Your task to perform on an android device: Show me productivity apps on the Play Store Image 0: 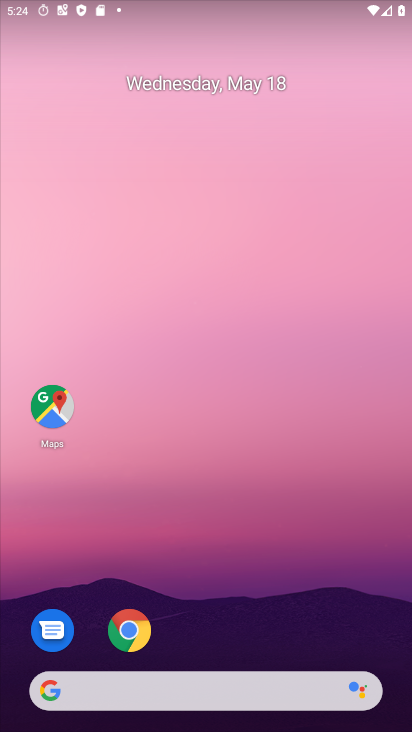
Step 0: drag from (201, 574) to (200, 256)
Your task to perform on an android device: Show me productivity apps on the Play Store Image 1: 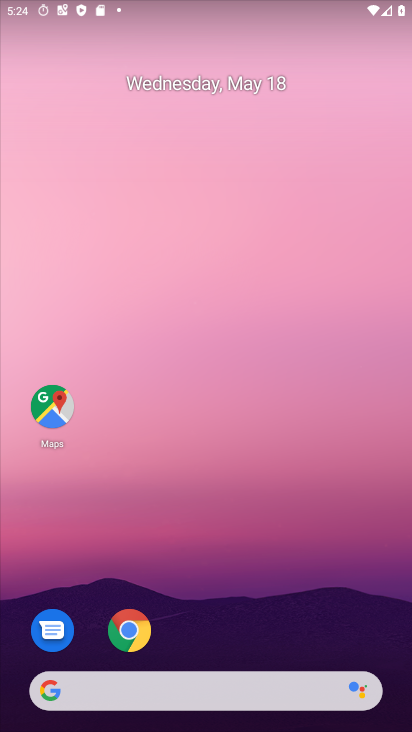
Step 1: drag from (173, 674) to (177, 155)
Your task to perform on an android device: Show me productivity apps on the Play Store Image 2: 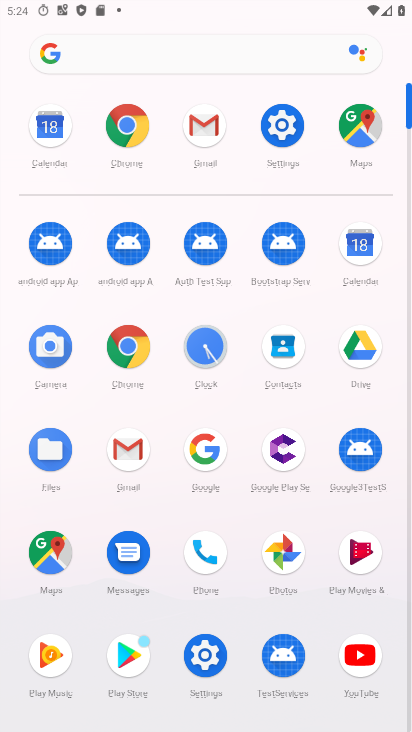
Step 2: click (128, 668)
Your task to perform on an android device: Show me productivity apps on the Play Store Image 3: 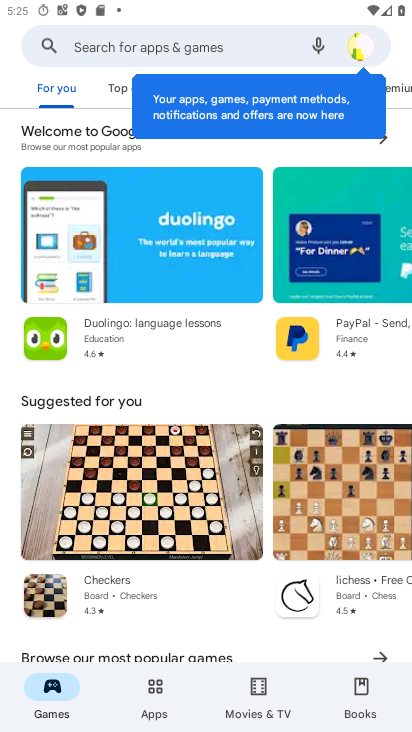
Step 3: drag from (163, 638) to (164, 298)
Your task to perform on an android device: Show me productivity apps on the Play Store Image 4: 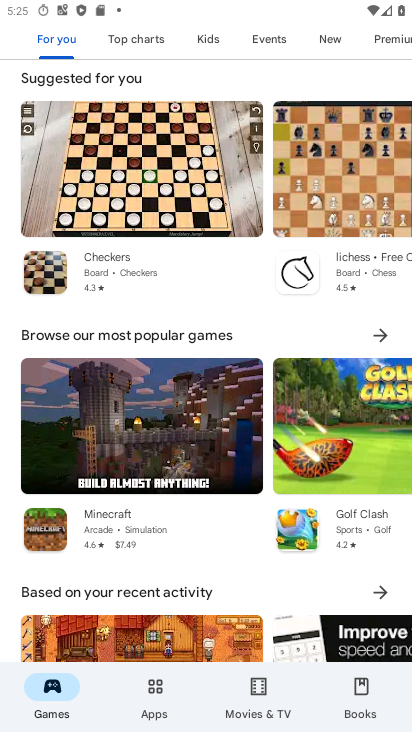
Step 4: click (148, 691)
Your task to perform on an android device: Show me productivity apps on the Play Store Image 5: 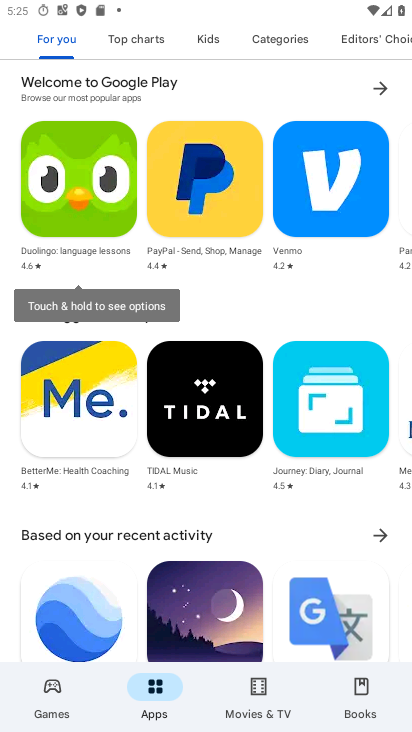
Step 5: task complete